Your task to perform on an android device: add a contact in the contacts app Image 0: 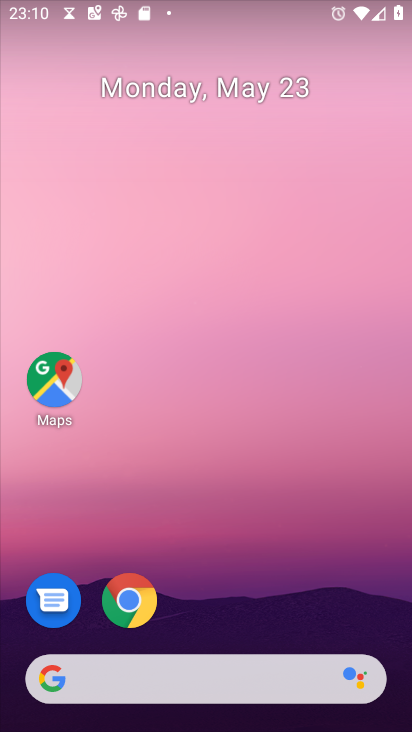
Step 0: drag from (199, 724) to (196, 234)
Your task to perform on an android device: add a contact in the contacts app Image 1: 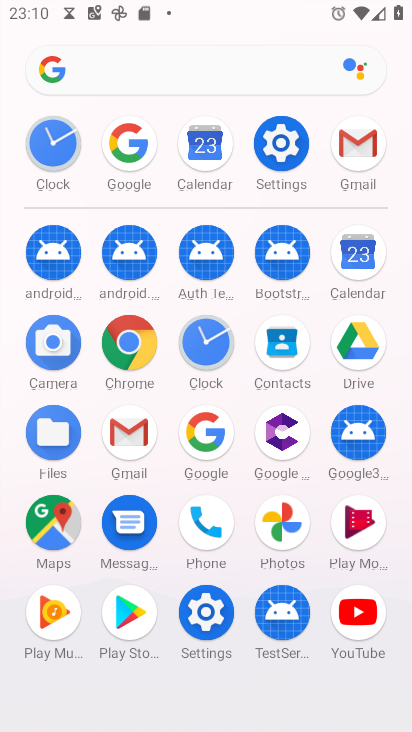
Step 1: click (290, 348)
Your task to perform on an android device: add a contact in the contacts app Image 2: 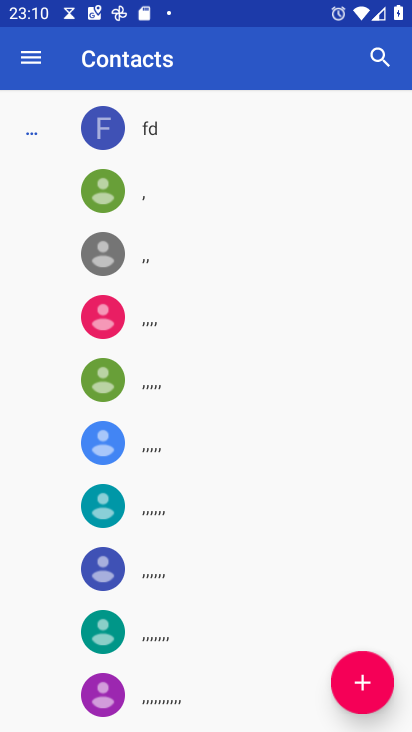
Step 2: click (363, 685)
Your task to perform on an android device: add a contact in the contacts app Image 3: 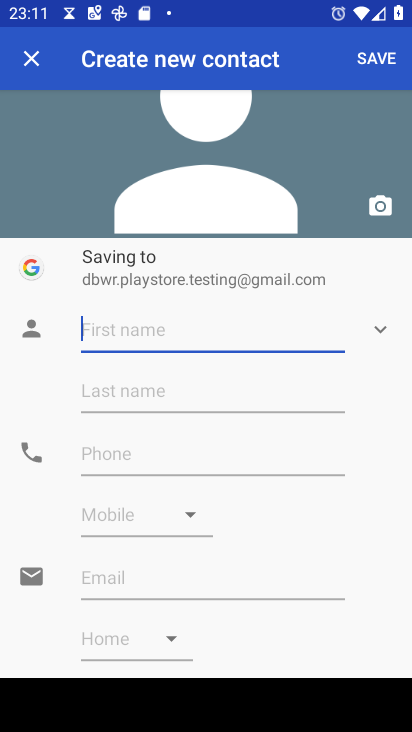
Step 3: type "sughreev"
Your task to perform on an android device: add a contact in the contacts app Image 4: 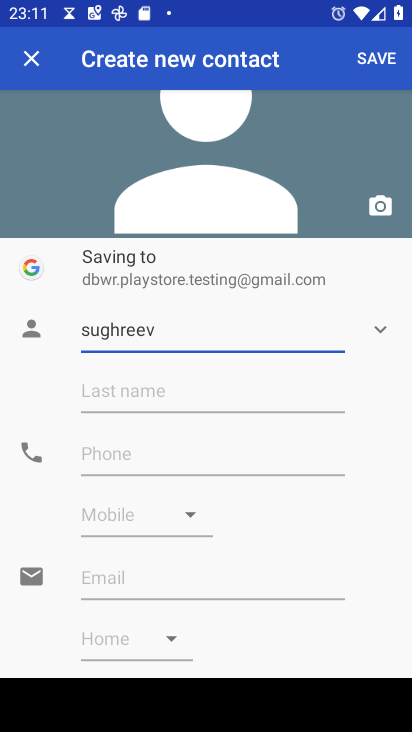
Step 4: click (111, 458)
Your task to perform on an android device: add a contact in the contacts app Image 5: 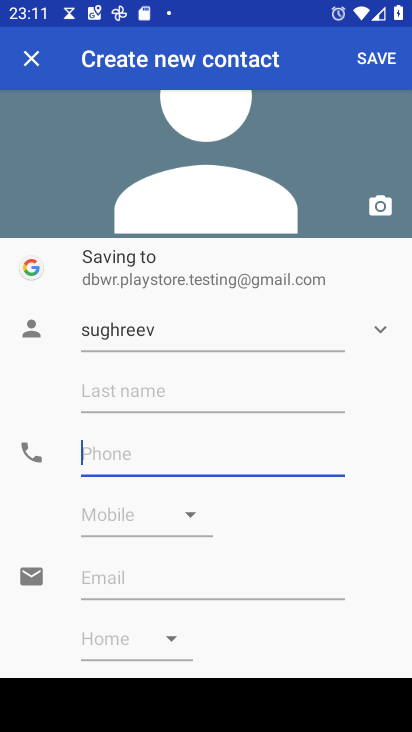
Step 5: type "999999"
Your task to perform on an android device: add a contact in the contacts app Image 6: 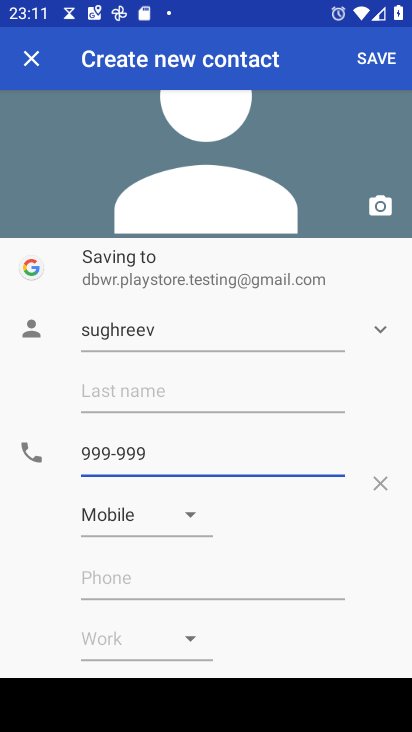
Step 6: click (376, 53)
Your task to perform on an android device: add a contact in the contacts app Image 7: 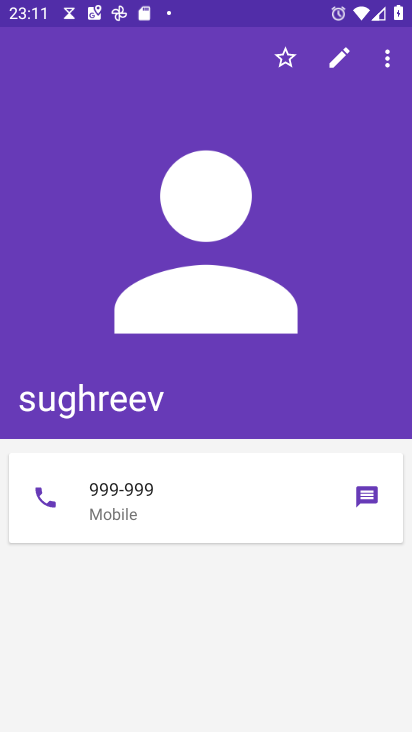
Step 7: task complete